Your task to perform on an android device: Install the Google app Image 0: 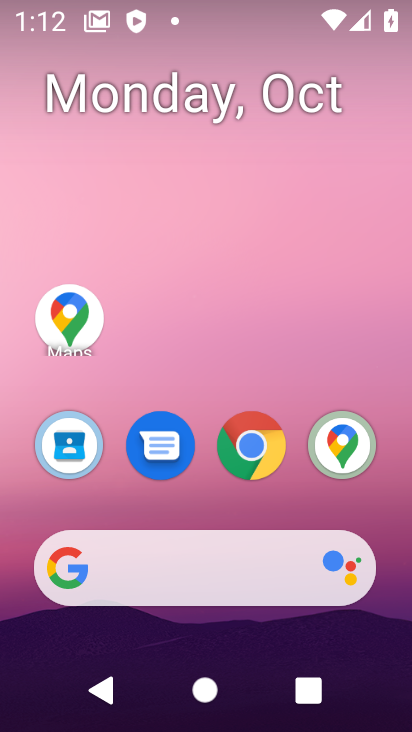
Step 0: drag from (199, 504) to (218, 92)
Your task to perform on an android device: Install the Google app Image 1: 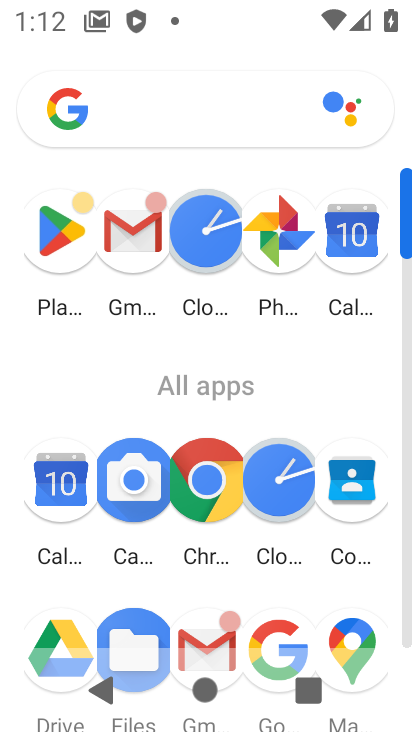
Step 1: click (71, 231)
Your task to perform on an android device: Install the Google app Image 2: 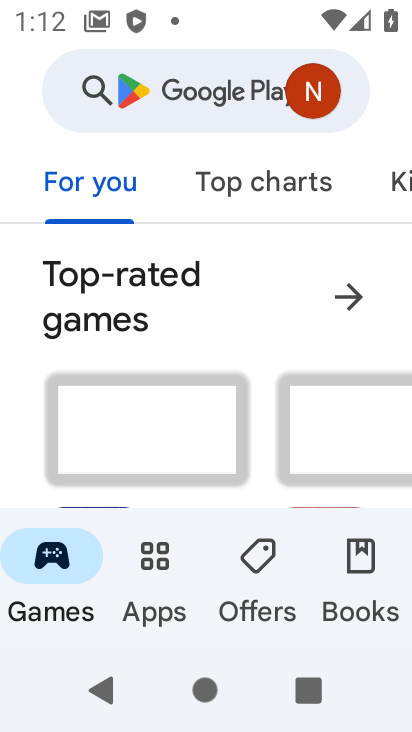
Step 2: click (193, 100)
Your task to perform on an android device: Install the Google app Image 3: 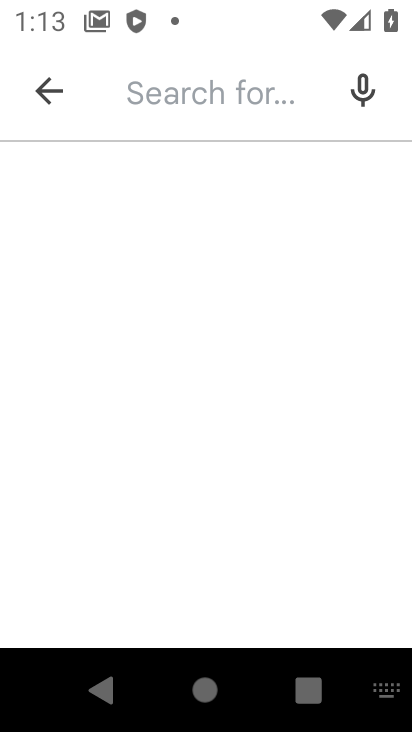
Step 3: type "Google app"
Your task to perform on an android device: Install the Google app Image 4: 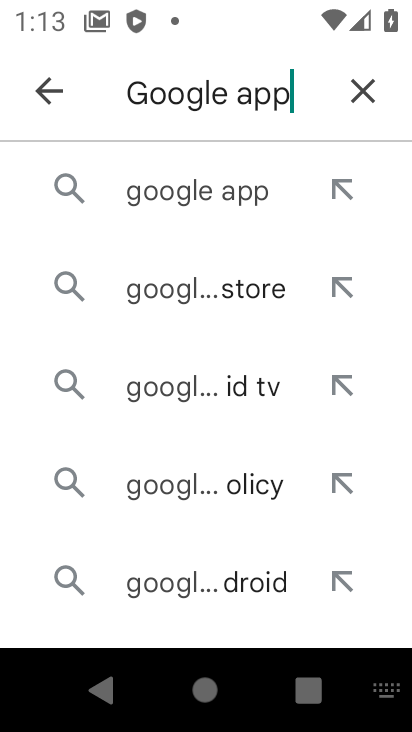
Step 4: type ""
Your task to perform on an android device: Install the Google app Image 5: 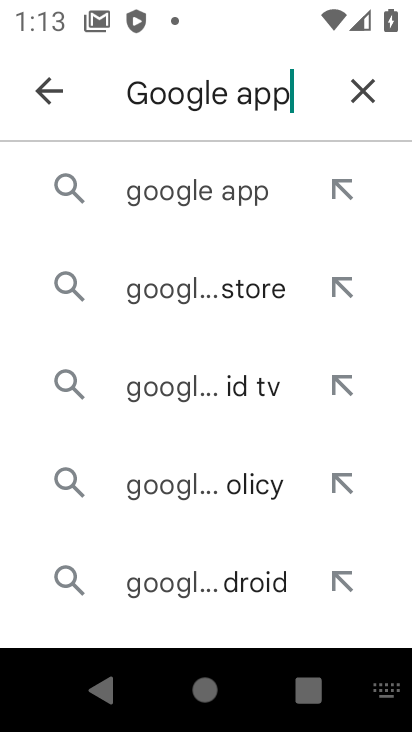
Step 5: click (219, 190)
Your task to perform on an android device: Install the Google app Image 6: 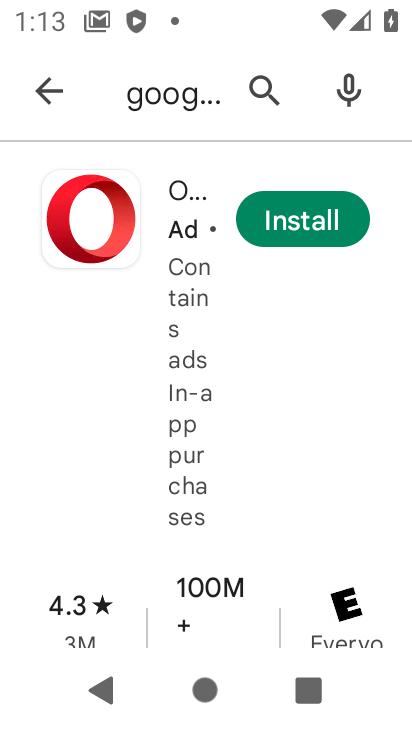
Step 6: drag from (210, 496) to (186, 164)
Your task to perform on an android device: Install the Google app Image 7: 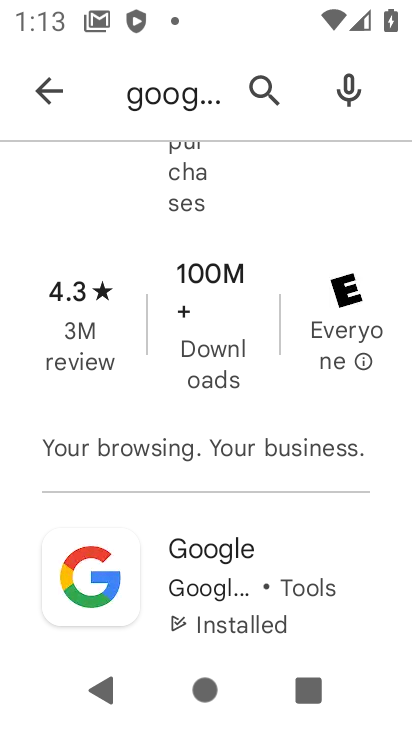
Step 7: click (224, 571)
Your task to perform on an android device: Install the Google app Image 8: 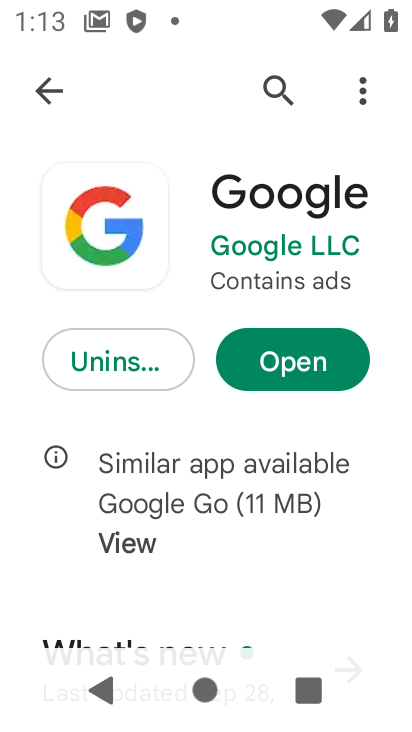
Step 8: task complete